Your task to perform on an android device: Go to eBay Image 0: 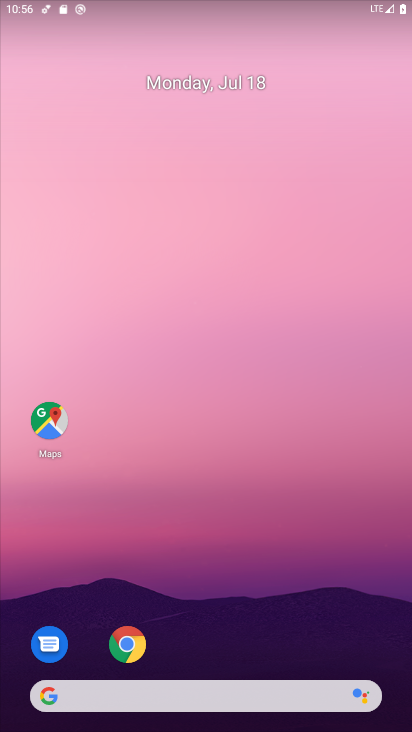
Step 0: drag from (336, 625) to (342, 89)
Your task to perform on an android device: Go to eBay Image 1: 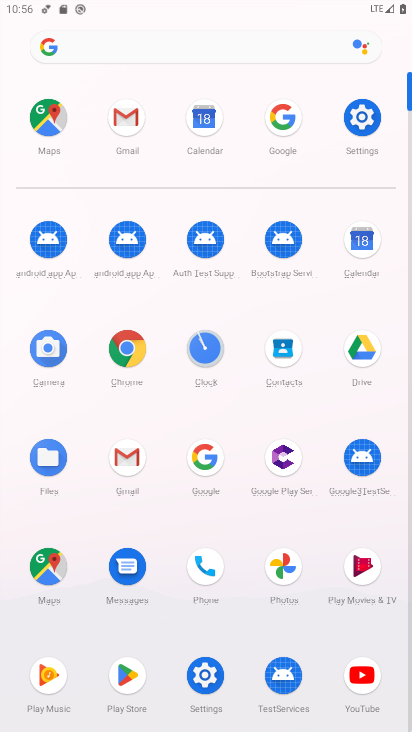
Step 1: click (130, 349)
Your task to perform on an android device: Go to eBay Image 2: 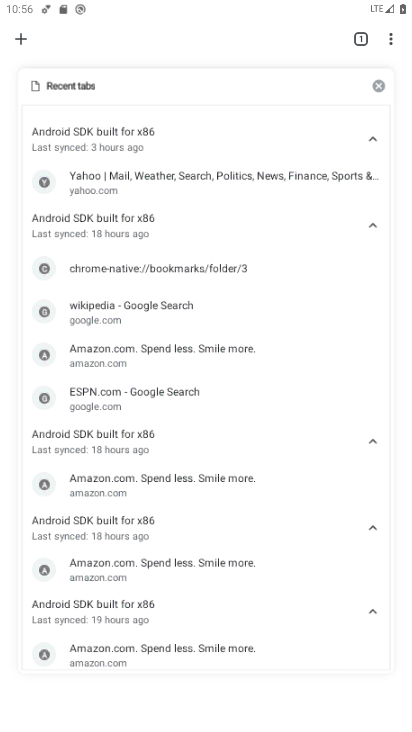
Step 2: press back button
Your task to perform on an android device: Go to eBay Image 3: 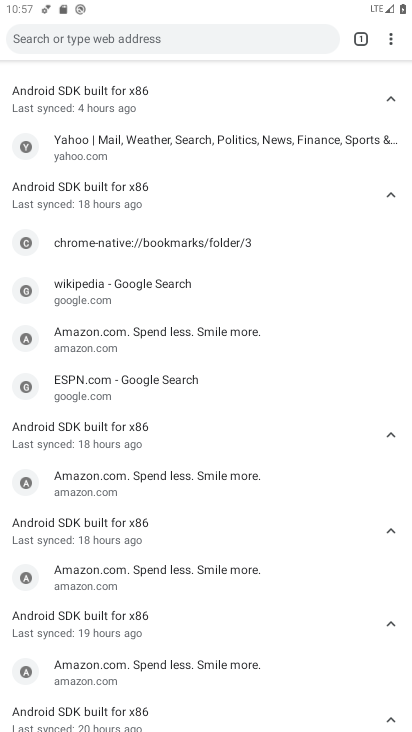
Step 3: click (208, 35)
Your task to perform on an android device: Go to eBay Image 4: 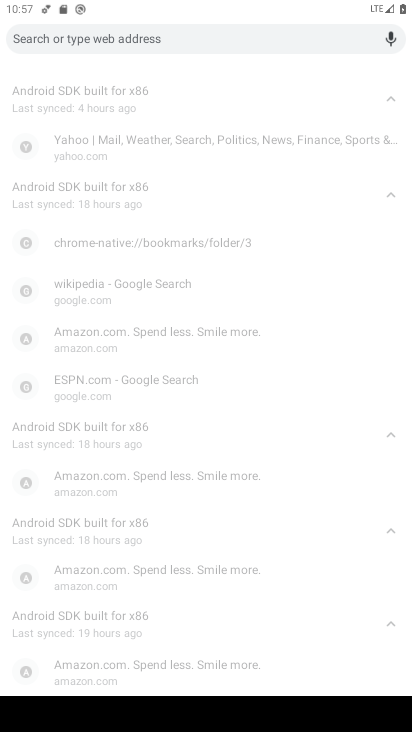
Step 4: type "ebay"
Your task to perform on an android device: Go to eBay Image 5: 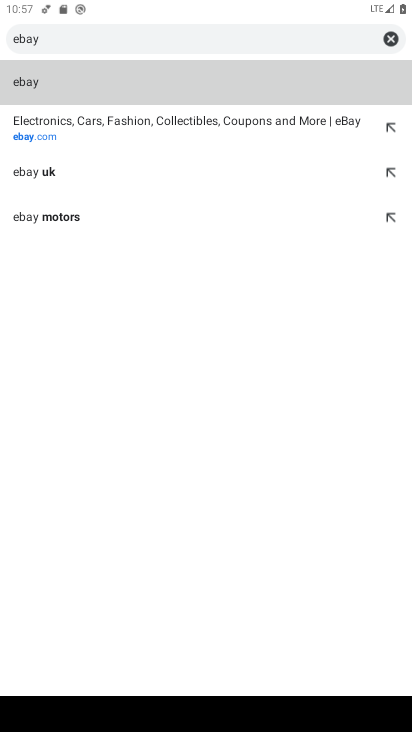
Step 5: click (262, 120)
Your task to perform on an android device: Go to eBay Image 6: 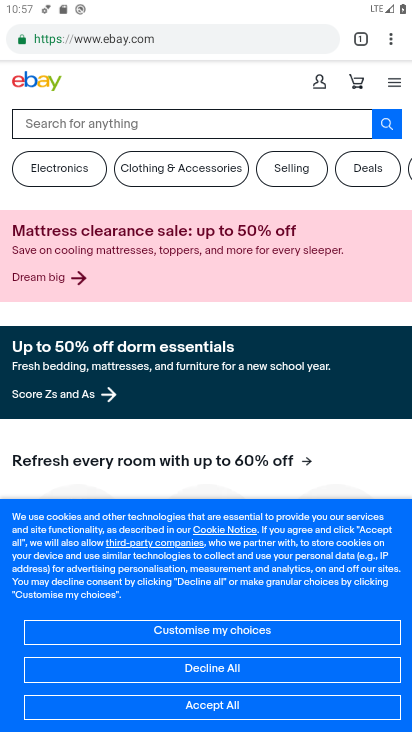
Step 6: task complete